Your task to perform on an android device: toggle priority inbox in the gmail app Image 0: 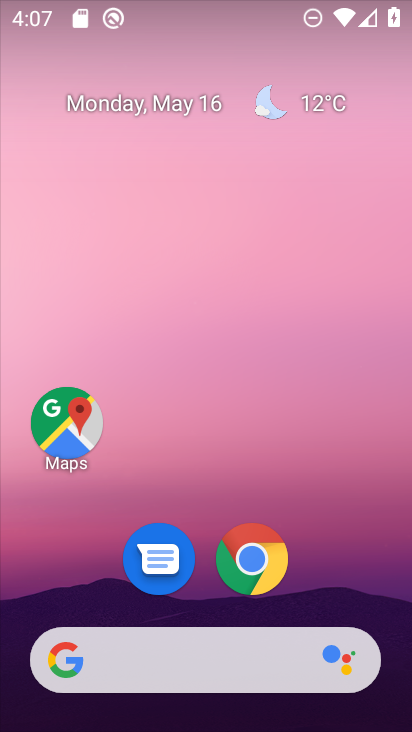
Step 0: drag from (381, 592) to (300, 71)
Your task to perform on an android device: toggle priority inbox in the gmail app Image 1: 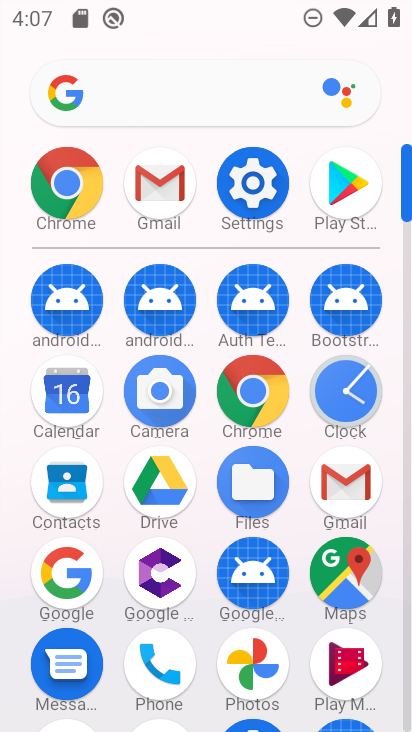
Step 1: click (167, 212)
Your task to perform on an android device: toggle priority inbox in the gmail app Image 2: 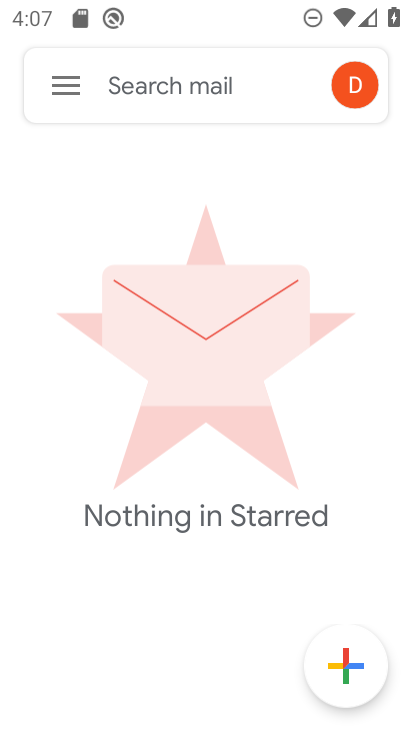
Step 2: click (60, 97)
Your task to perform on an android device: toggle priority inbox in the gmail app Image 3: 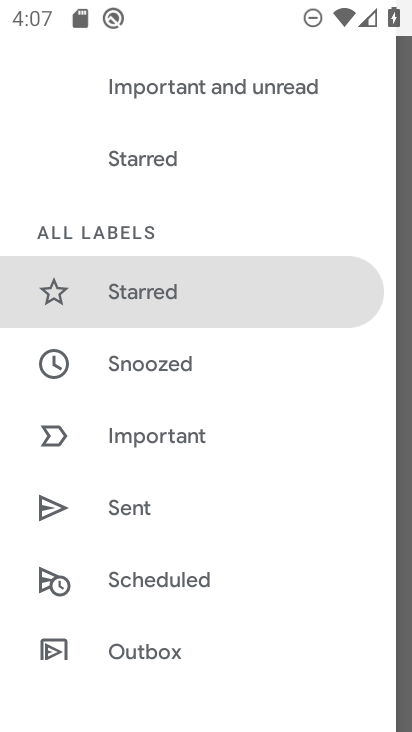
Step 3: drag from (180, 637) to (134, 388)
Your task to perform on an android device: toggle priority inbox in the gmail app Image 4: 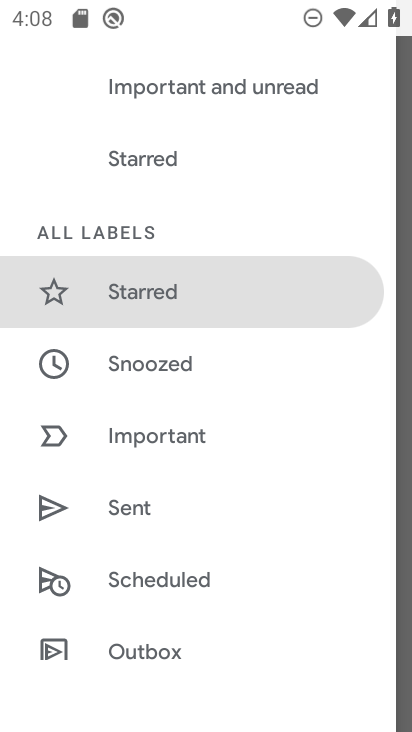
Step 4: drag from (155, 237) to (104, 527)
Your task to perform on an android device: toggle priority inbox in the gmail app Image 5: 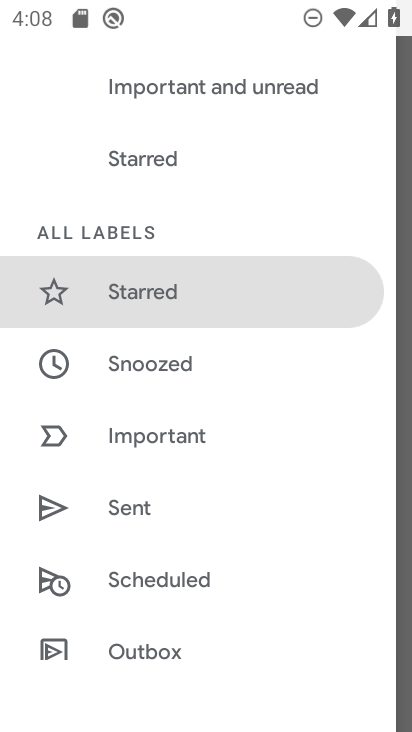
Step 5: drag from (104, 527) to (71, 229)
Your task to perform on an android device: toggle priority inbox in the gmail app Image 6: 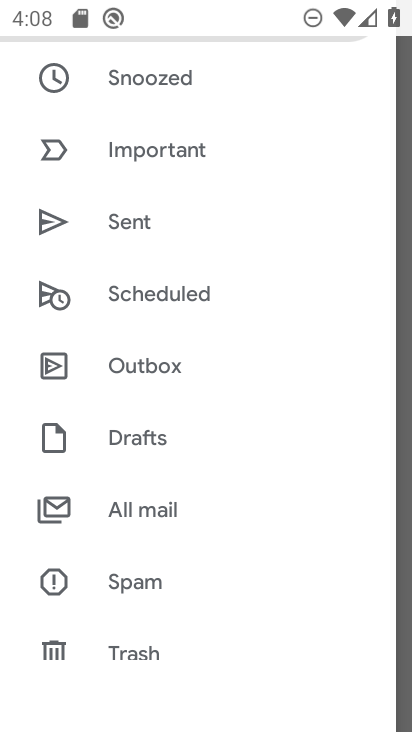
Step 6: drag from (125, 562) to (122, 331)
Your task to perform on an android device: toggle priority inbox in the gmail app Image 7: 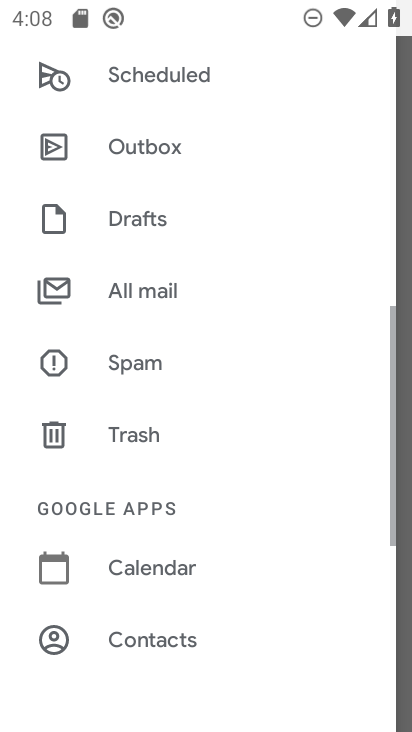
Step 7: drag from (122, 331) to (127, 623)
Your task to perform on an android device: toggle priority inbox in the gmail app Image 8: 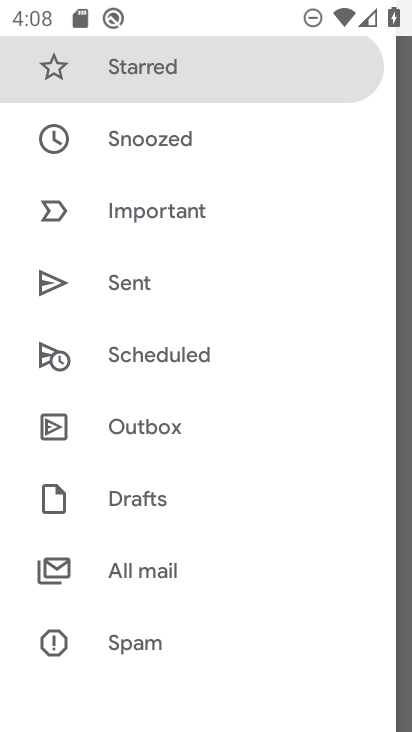
Step 8: drag from (136, 163) to (115, 625)
Your task to perform on an android device: toggle priority inbox in the gmail app Image 9: 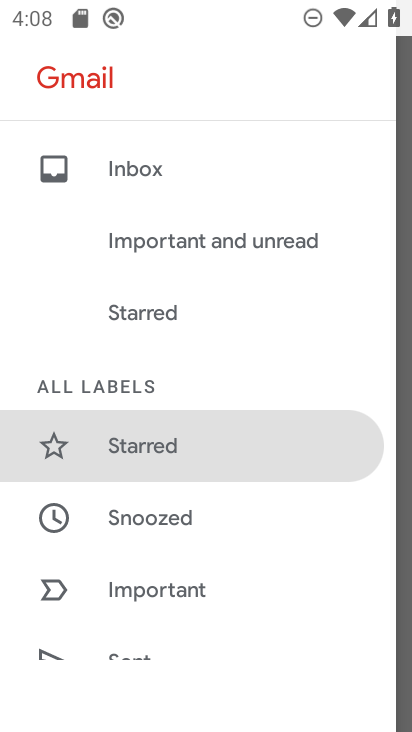
Step 9: click (161, 173)
Your task to perform on an android device: toggle priority inbox in the gmail app Image 10: 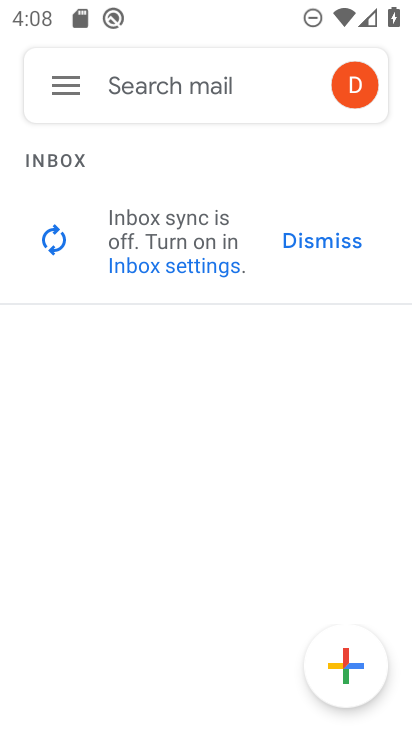
Step 10: click (53, 96)
Your task to perform on an android device: toggle priority inbox in the gmail app Image 11: 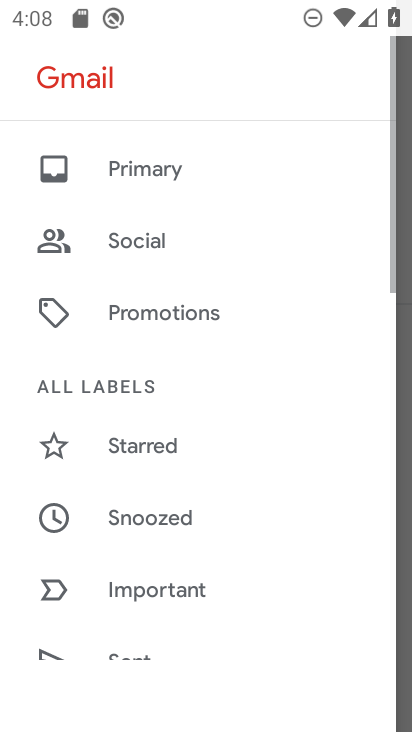
Step 11: drag from (83, 562) to (69, 194)
Your task to perform on an android device: toggle priority inbox in the gmail app Image 12: 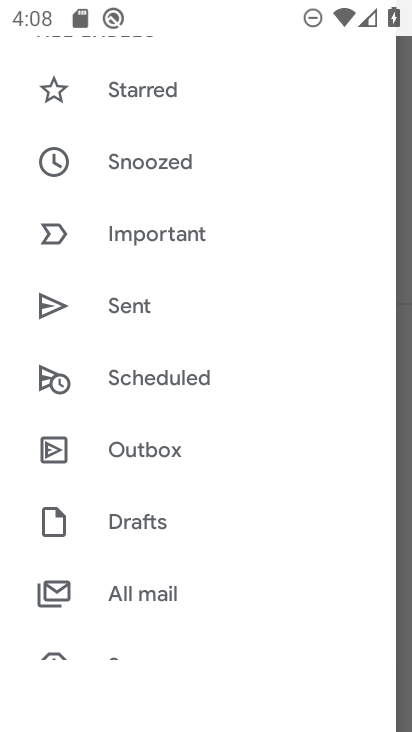
Step 12: drag from (115, 643) to (100, 218)
Your task to perform on an android device: toggle priority inbox in the gmail app Image 13: 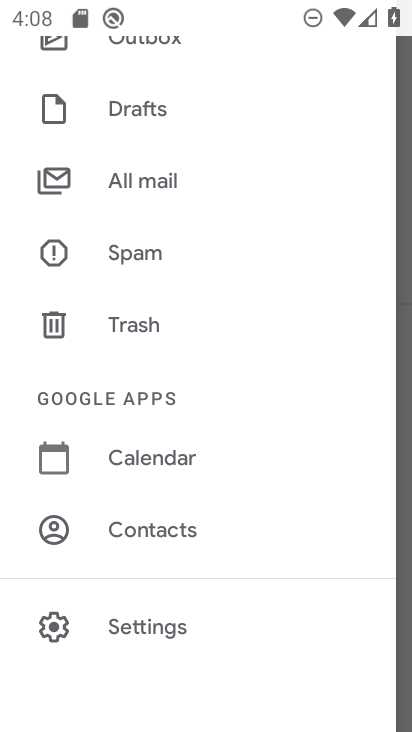
Step 13: click (148, 601)
Your task to perform on an android device: toggle priority inbox in the gmail app Image 14: 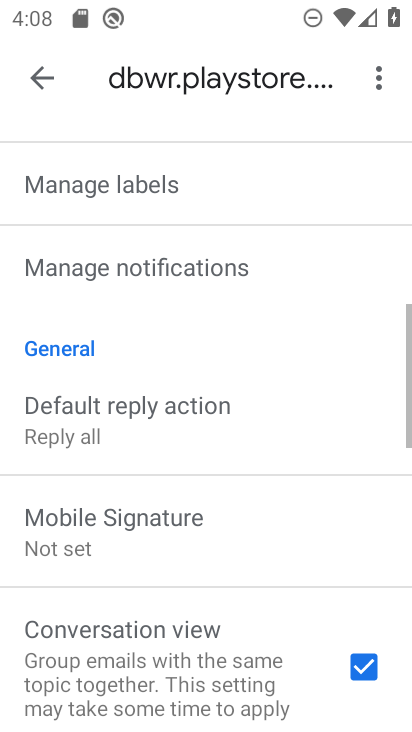
Step 14: drag from (148, 601) to (143, 369)
Your task to perform on an android device: toggle priority inbox in the gmail app Image 15: 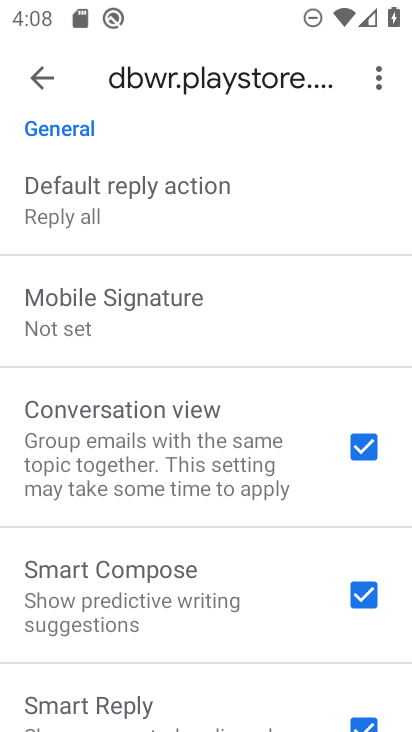
Step 15: drag from (109, 209) to (112, 458)
Your task to perform on an android device: toggle priority inbox in the gmail app Image 16: 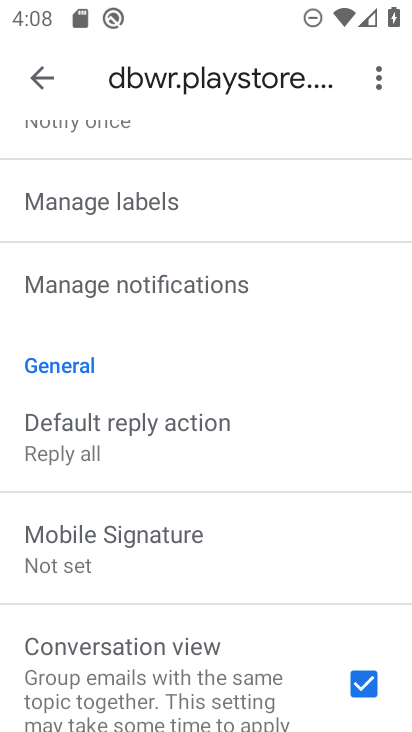
Step 16: drag from (125, 302) to (128, 545)
Your task to perform on an android device: toggle priority inbox in the gmail app Image 17: 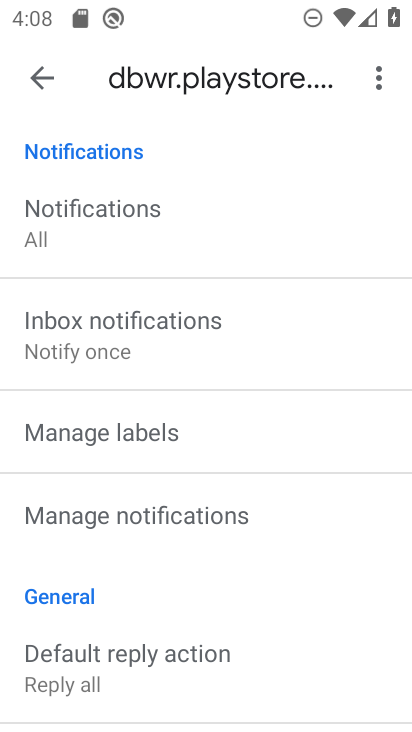
Step 17: drag from (102, 282) to (97, 508)
Your task to perform on an android device: toggle priority inbox in the gmail app Image 18: 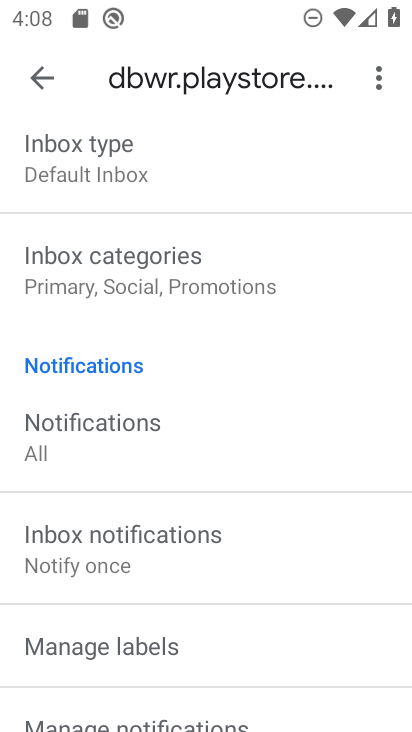
Step 18: click (105, 198)
Your task to perform on an android device: toggle priority inbox in the gmail app Image 19: 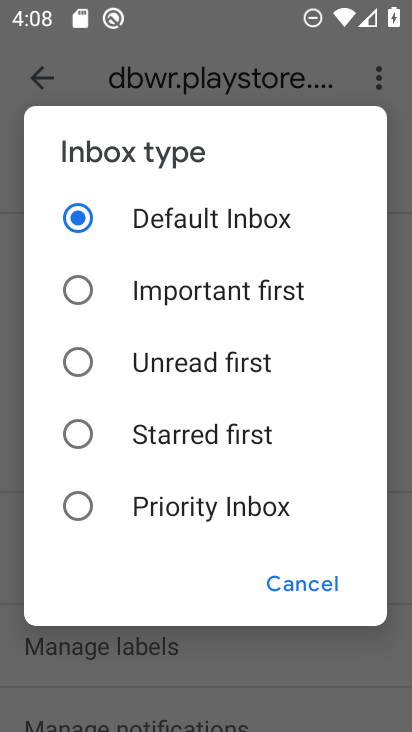
Step 19: click (161, 507)
Your task to perform on an android device: toggle priority inbox in the gmail app Image 20: 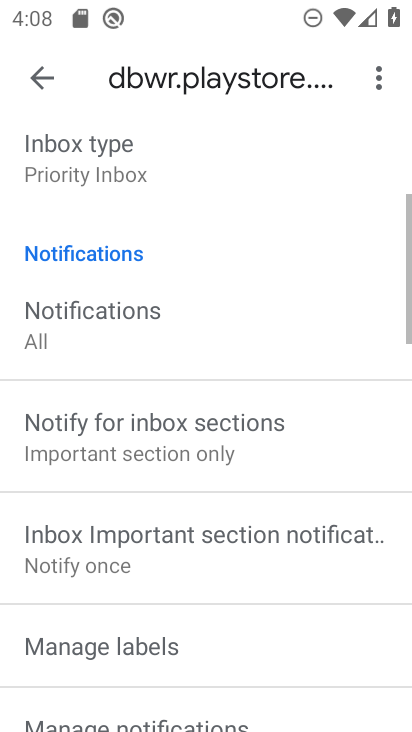
Step 20: task complete